Your task to perform on an android device: open sync settings in chrome Image 0: 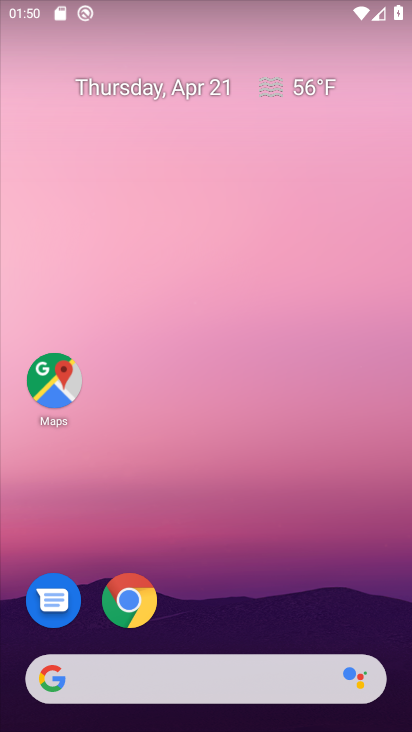
Step 0: click (137, 588)
Your task to perform on an android device: open sync settings in chrome Image 1: 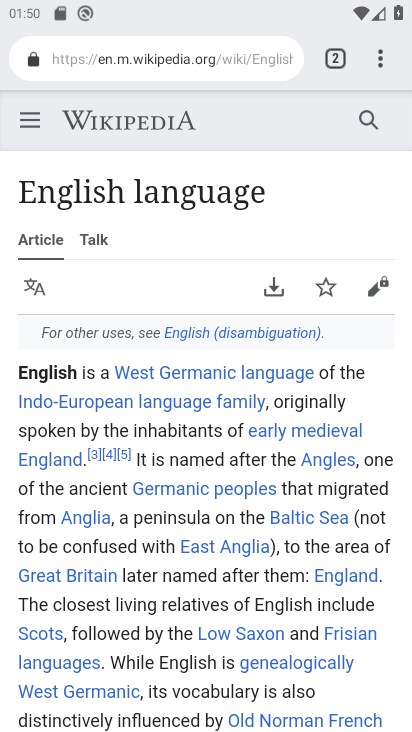
Step 1: click (378, 52)
Your task to perform on an android device: open sync settings in chrome Image 2: 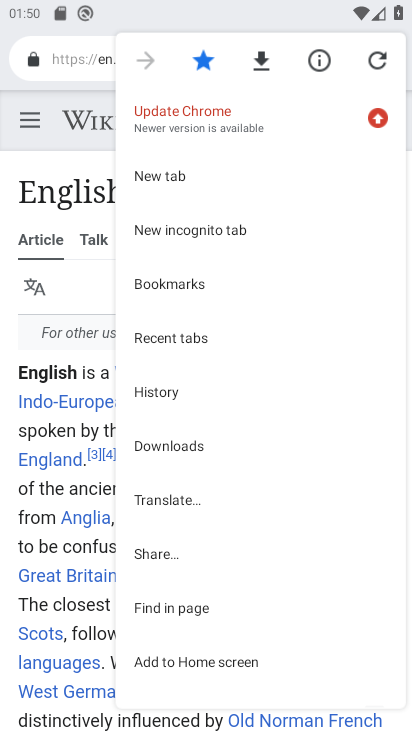
Step 2: drag from (274, 571) to (311, 259)
Your task to perform on an android device: open sync settings in chrome Image 3: 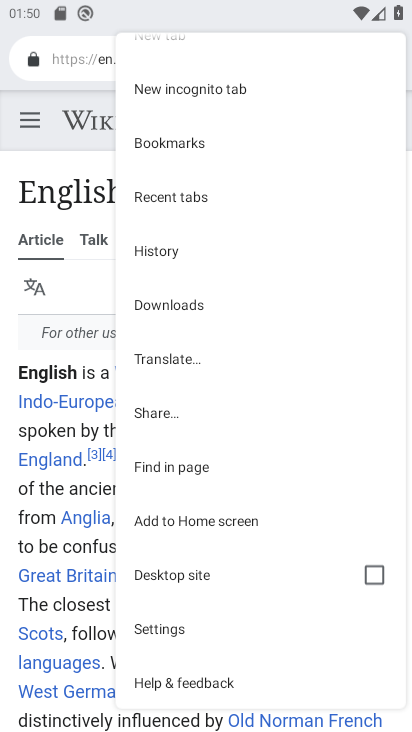
Step 3: click (187, 623)
Your task to perform on an android device: open sync settings in chrome Image 4: 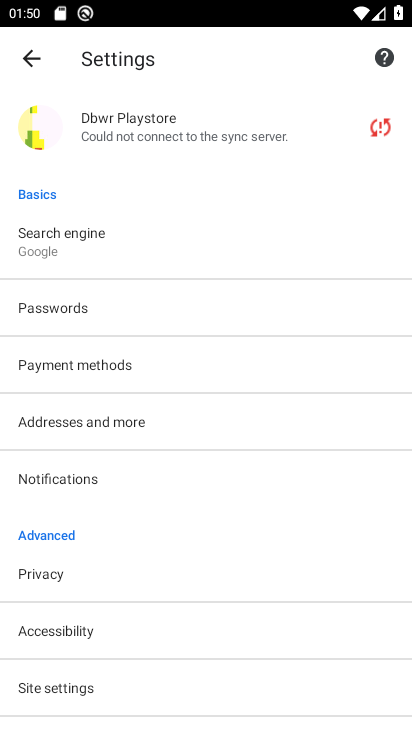
Step 4: click (159, 123)
Your task to perform on an android device: open sync settings in chrome Image 5: 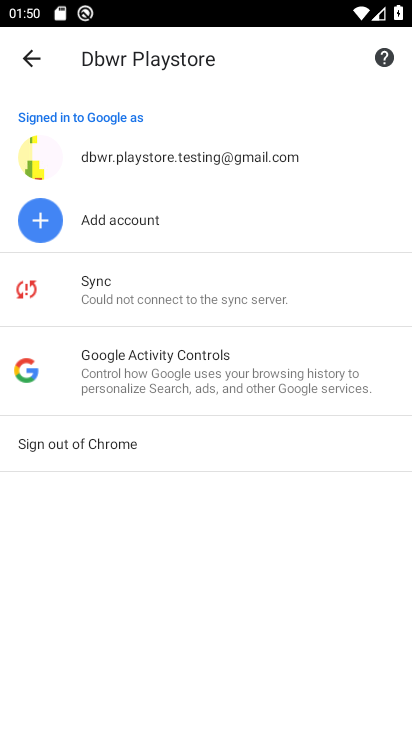
Step 5: click (150, 284)
Your task to perform on an android device: open sync settings in chrome Image 6: 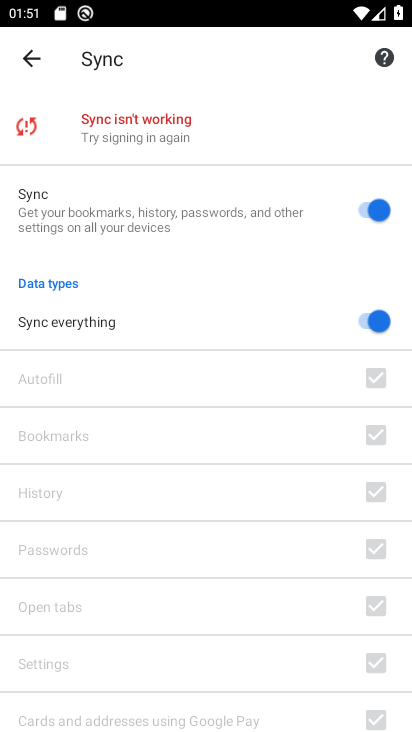
Step 6: task complete